Your task to perform on an android device: uninstall "Firefox Browser" Image 0: 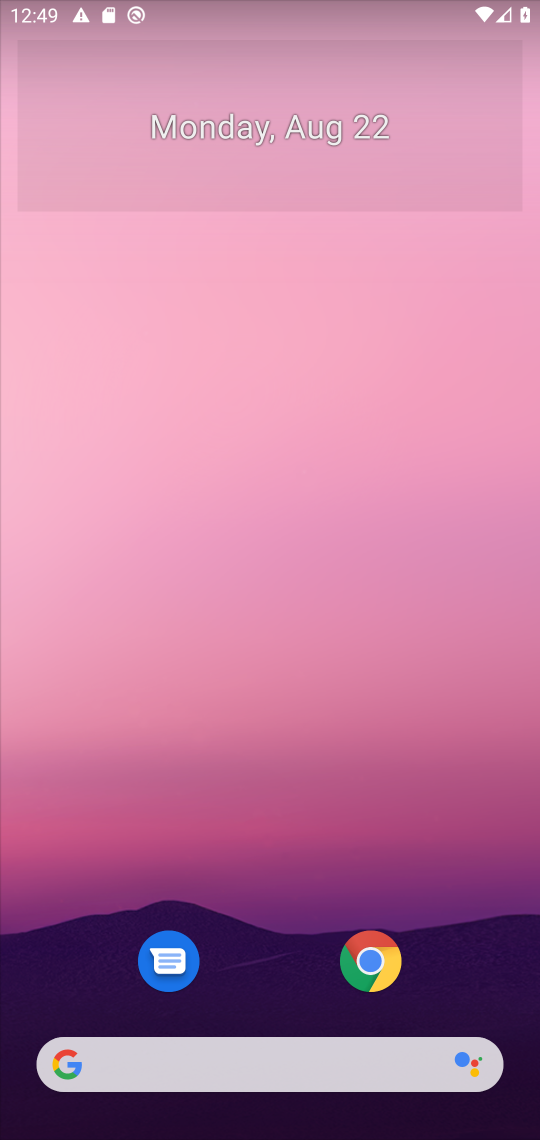
Step 0: drag from (472, 908) to (450, 156)
Your task to perform on an android device: uninstall "Firefox Browser" Image 1: 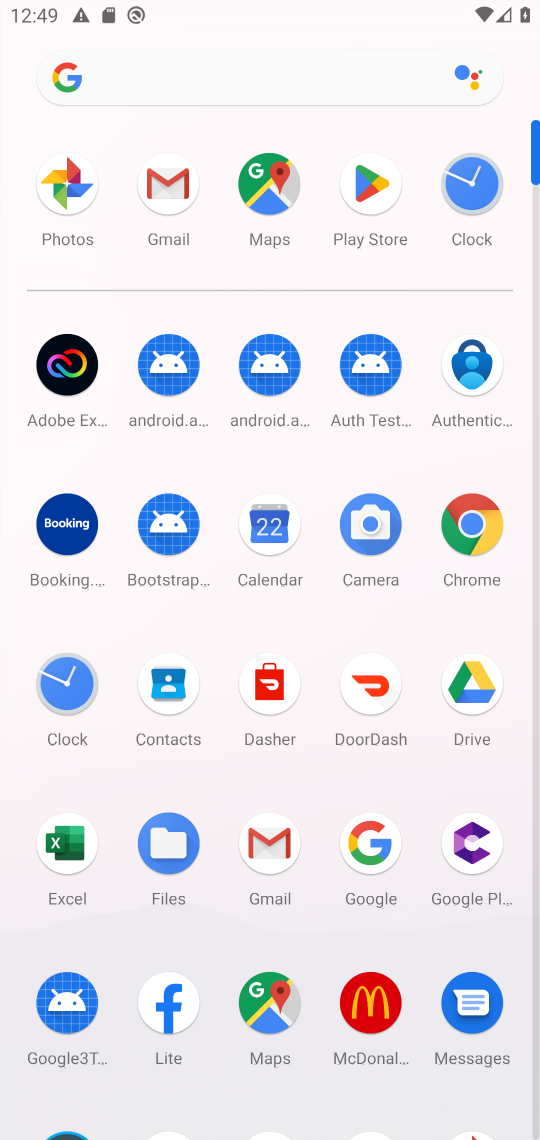
Step 1: click (372, 188)
Your task to perform on an android device: uninstall "Firefox Browser" Image 2: 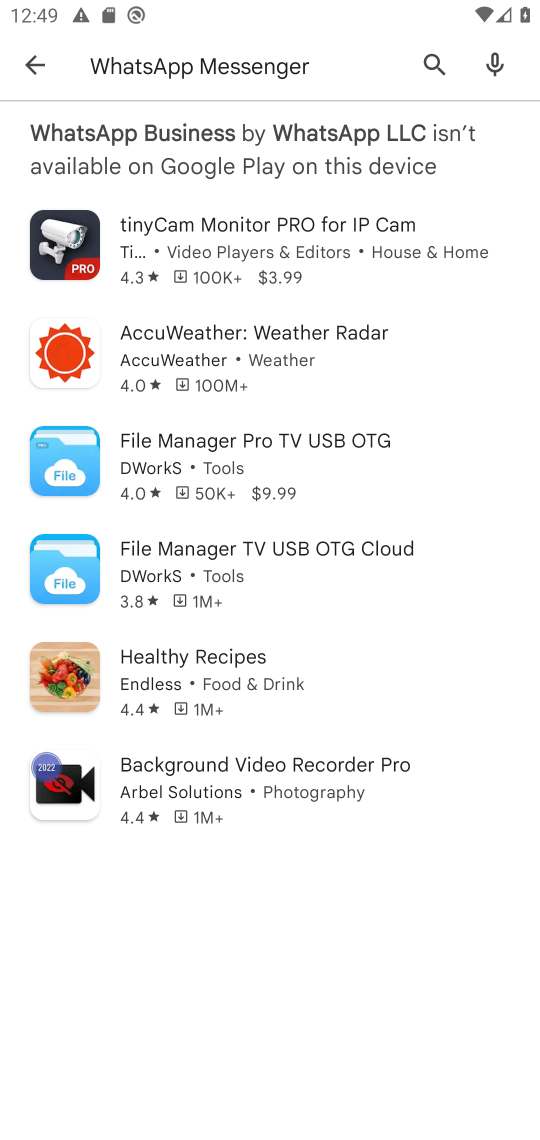
Step 2: press back button
Your task to perform on an android device: uninstall "Firefox Browser" Image 3: 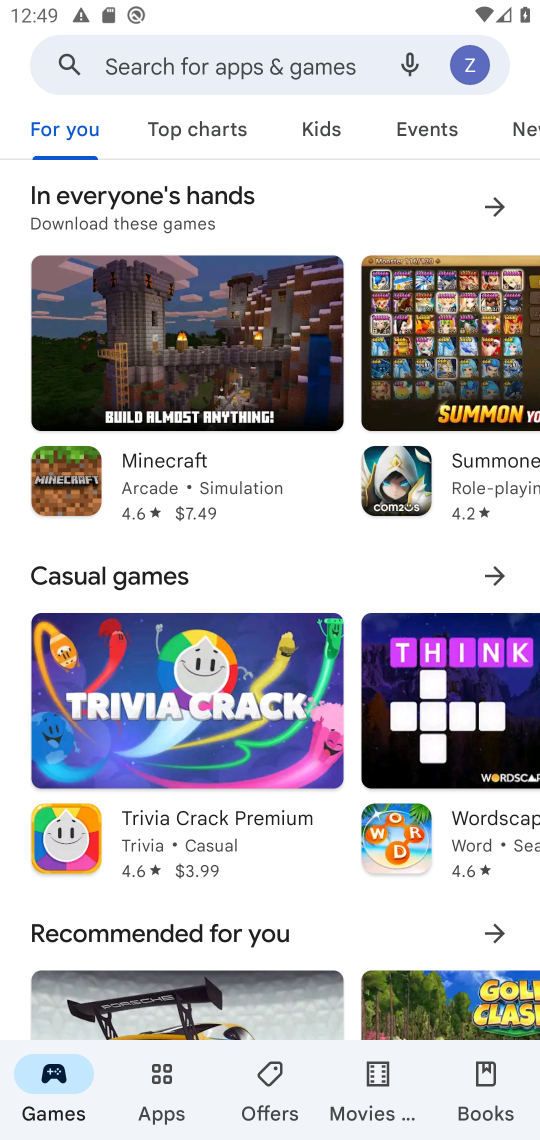
Step 3: click (259, 61)
Your task to perform on an android device: uninstall "Firefox Browser" Image 4: 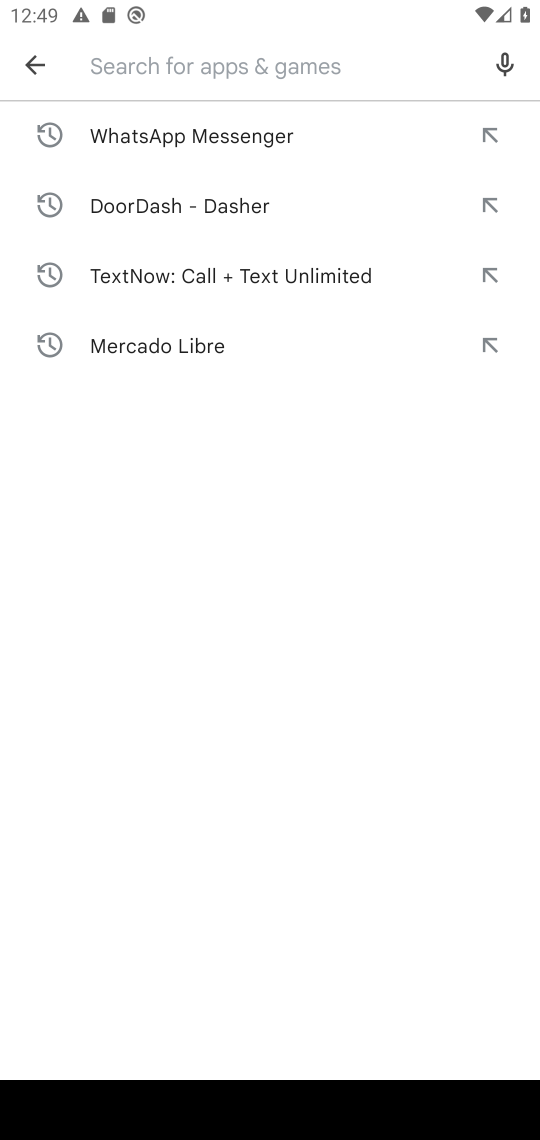
Step 4: type "Firefox Browser"
Your task to perform on an android device: uninstall "Firefox Browser" Image 5: 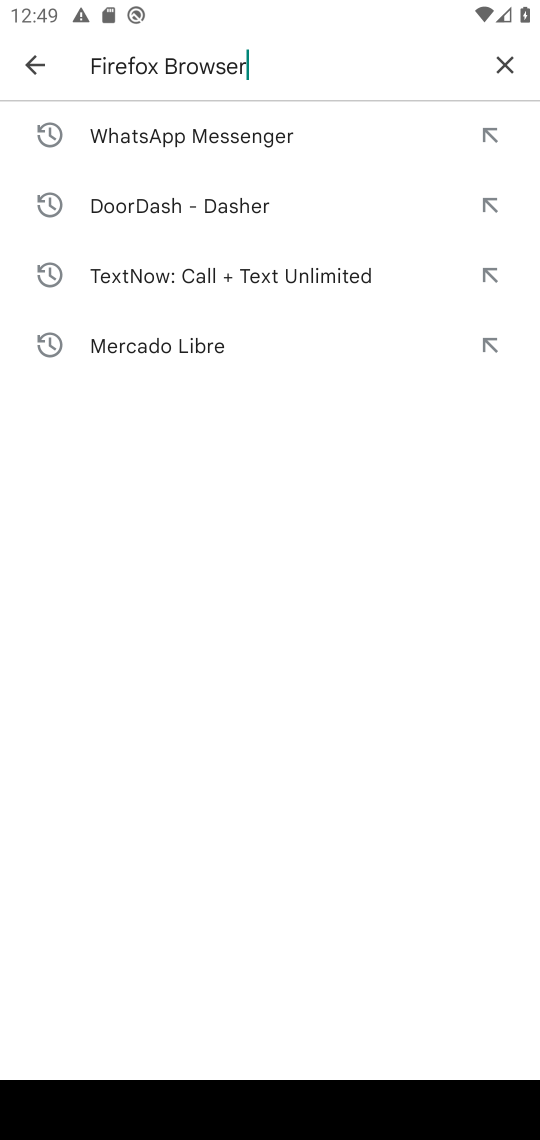
Step 5: press enter
Your task to perform on an android device: uninstall "Firefox Browser" Image 6: 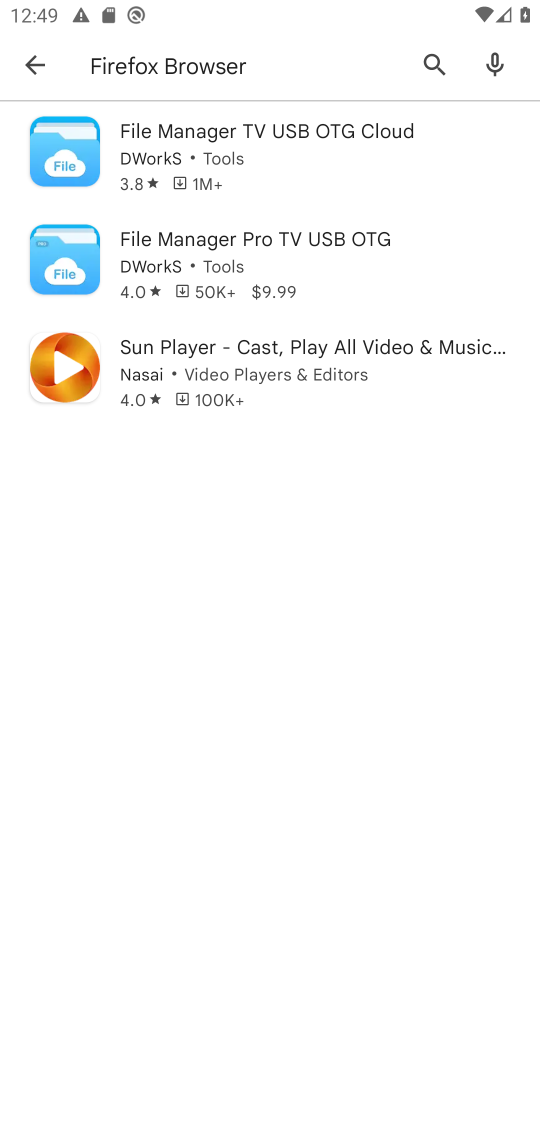
Step 6: task complete